Your task to perform on an android device: Turn on the flashlight Image 0: 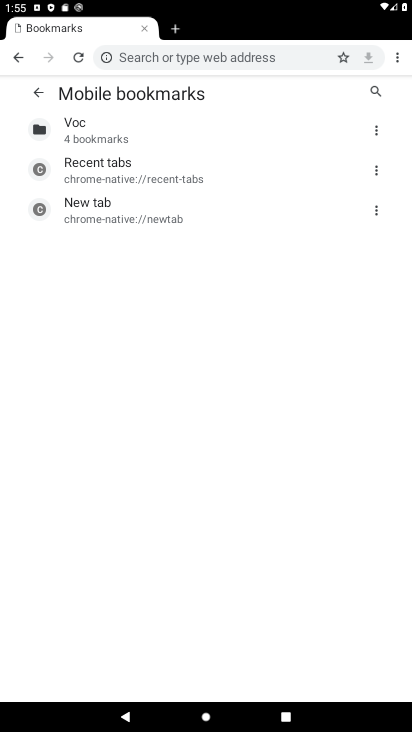
Step 0: press home button
Your task to perform on an android device: Turn on the flashlight Image 1: 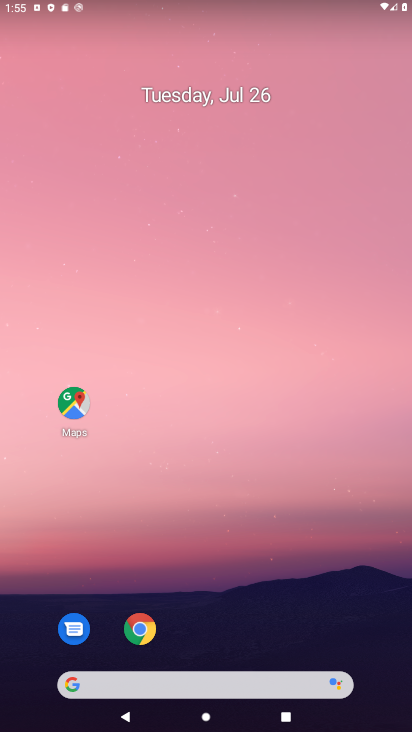
Step 1: drag from (187, 16) to (179, 214)
Your task to perform on an android device: Turn on the flashlight Image 2: 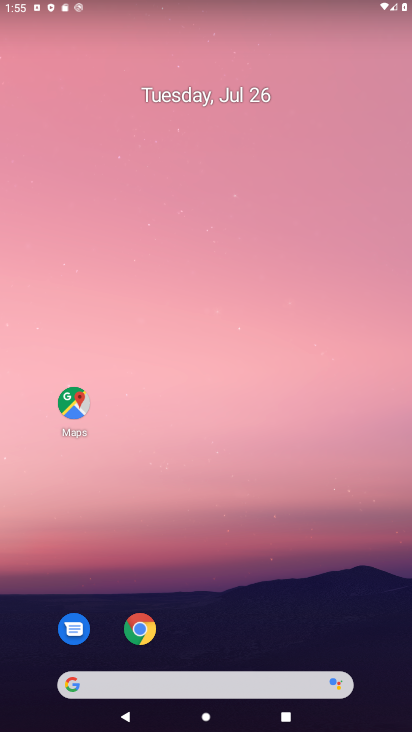
Step 2: drag from (190, 12) to (182, 254)
Your task to perform on an android device: Turn on the flashlight Image 3: 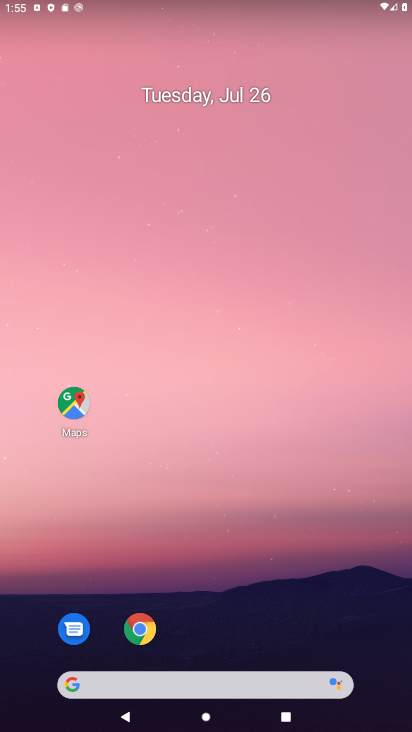
Step 3: drag from (186, 11) to (174, 445)
Your task to perform on an android device: Turn on the flashlight Image 4: 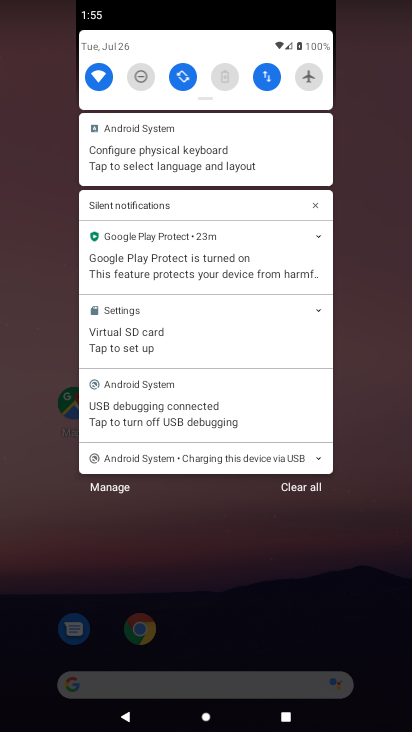
Step 4: drag from (203, 99) to (196, 393)
Your task to perform on an android device: Turn on the flashlight Image 5: 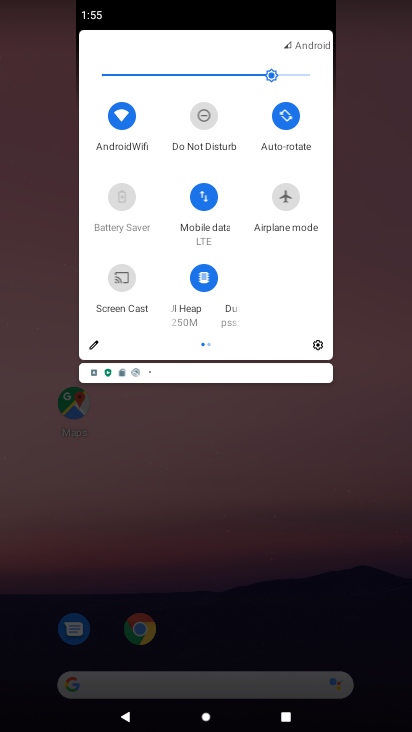
Step 5: click (90, 342)
Your task to perform on an android device: Turn on the flashlight Image 6: 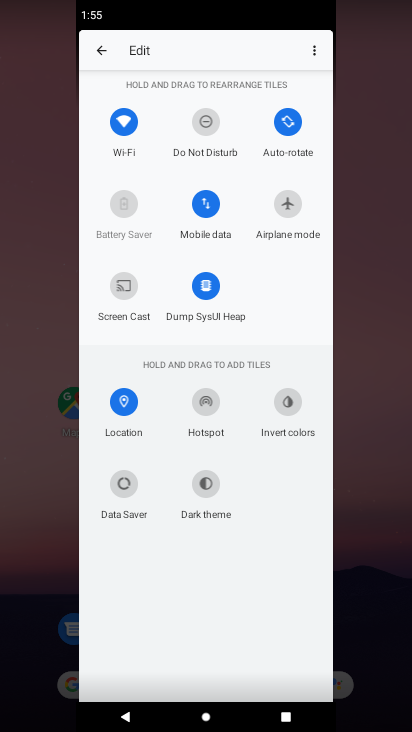
Step 6: task complete